Your task to perform on an android device: Search for Mexican restaurants on Maps Image 0: 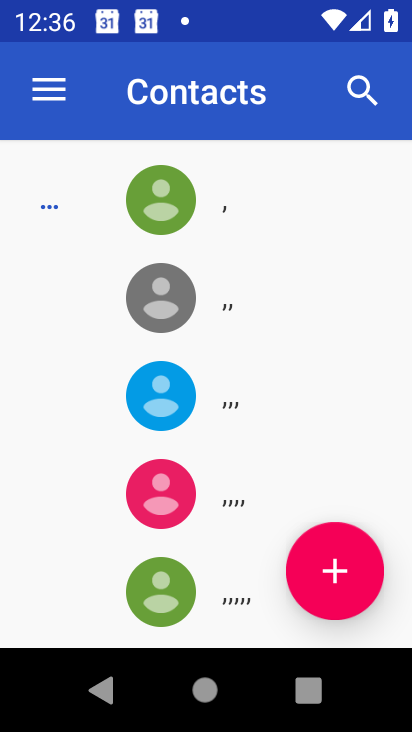
Step 0: press home button
Your task to perform on an android device: Search for Mexican restaurants on Maps Image 1: 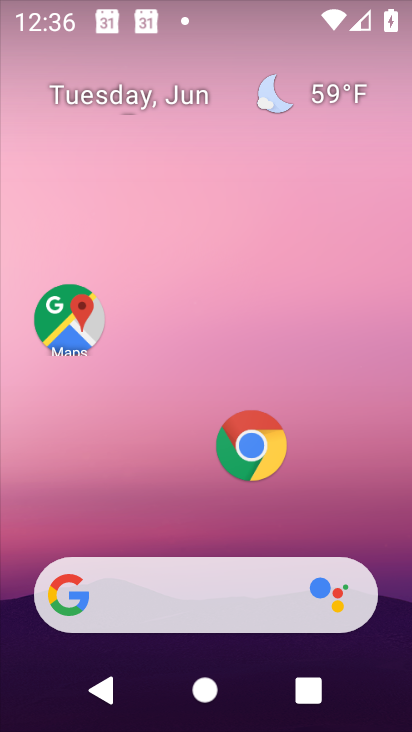
Step 1: click (93, 303)
Your task to perform on an android device: Search for Mexican restaurants on Maps Image 2: 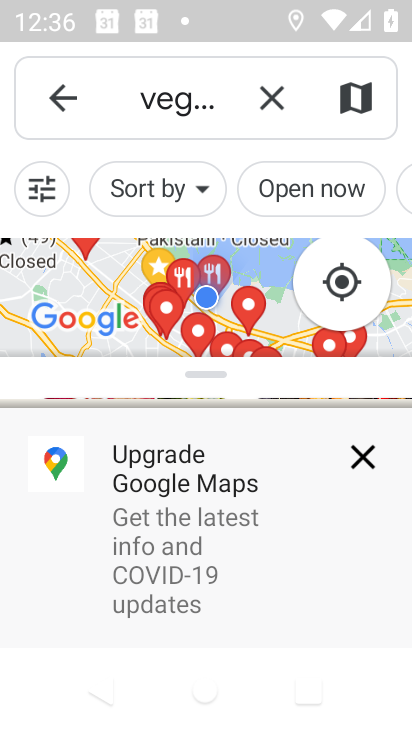
Step 2: click (279, 78)
Your task to perform on an android device: Search for Mexican restaurants on Maps Image 3: 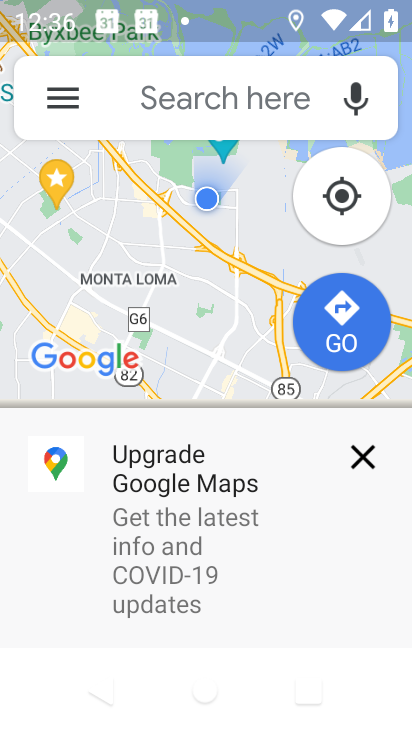
Step 3: click (159, 103)
Your task to perform on an android device: Search for Mexican restaurants on Maps Image 4: 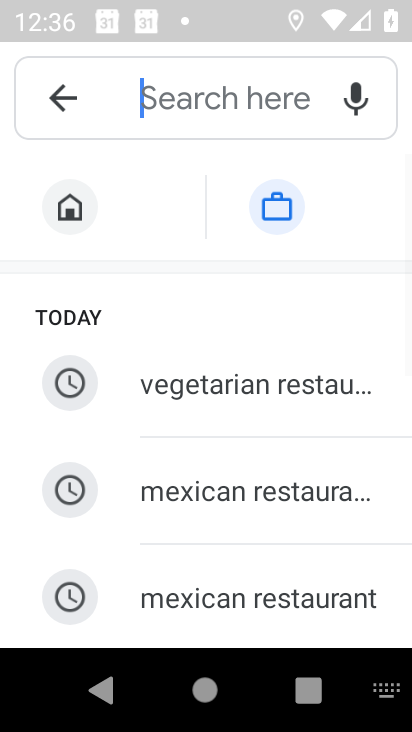
Step 4: click (192, 506)
Your task to perform on an android device: Search for Mexican restaurants on Maps Image 5: 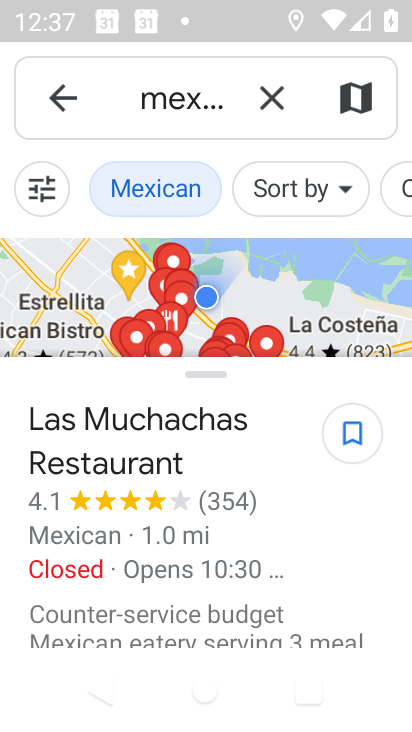
Step 5: task complete